Your task to perform on an android device: turn off wifi Image 0: 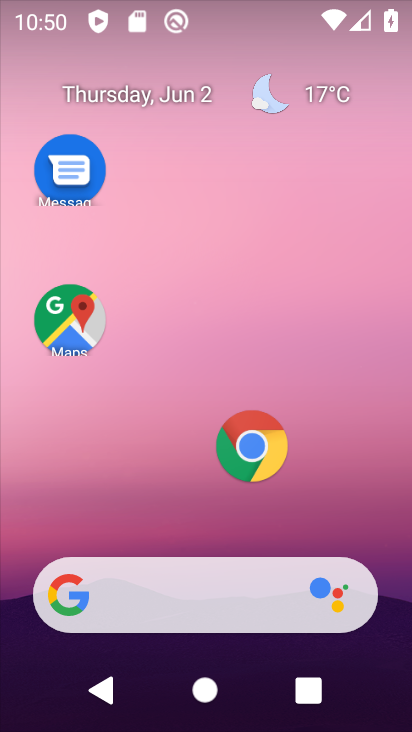
Step 0: press home button
Your task to perform on an android device: turn off wifi Image 1: 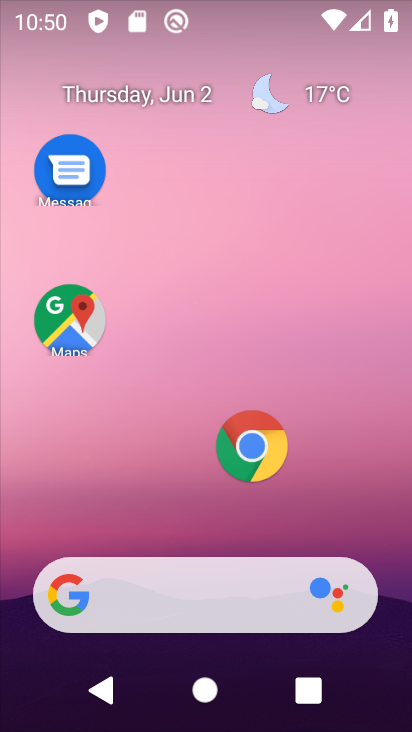
Step 1: drag from (298, 12) to (0, 588)
Your task to perform on an android device: turn off wifi Image 2: 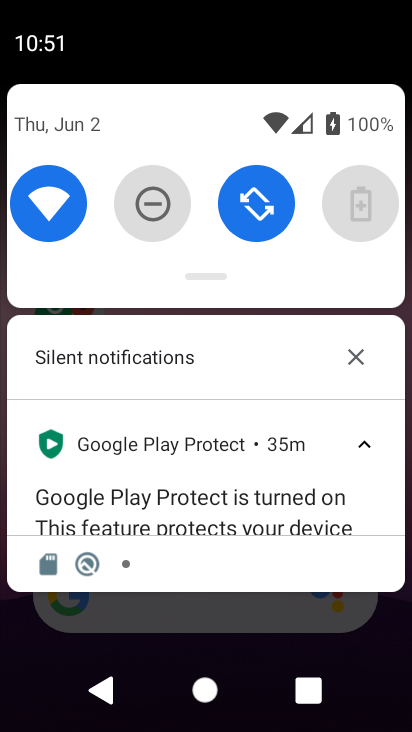
Step 2: click (42, 184)
Your task to perform on an android device: turn off wifi Image 3: 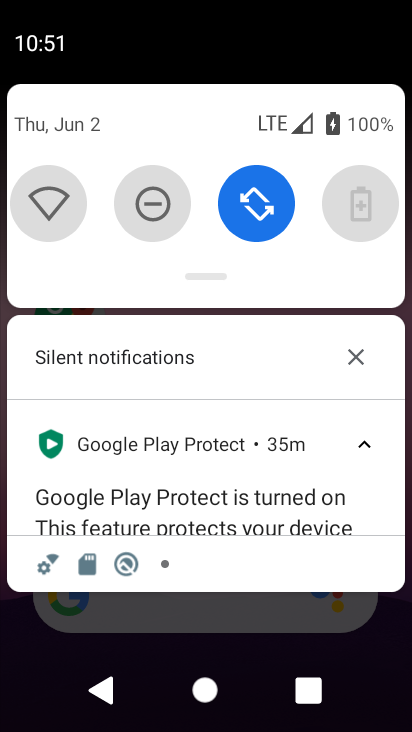
Step 3: task complete